Your task to perform on an android device: View the shopping cart on ebay. Search for rayovac triple a on ebay, select the first entry, add it to the cart, then select checkout. Image 0: 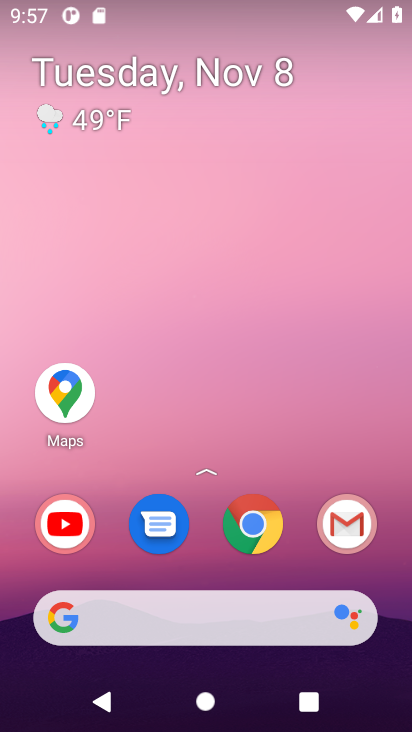
Step 0: click (256, 535)
Your task to perform on an android device: View the shopping cart on ebay. Search for rayovac triple a on ebay, select the first entry, add it to the cart, then select checkout. Image 1: 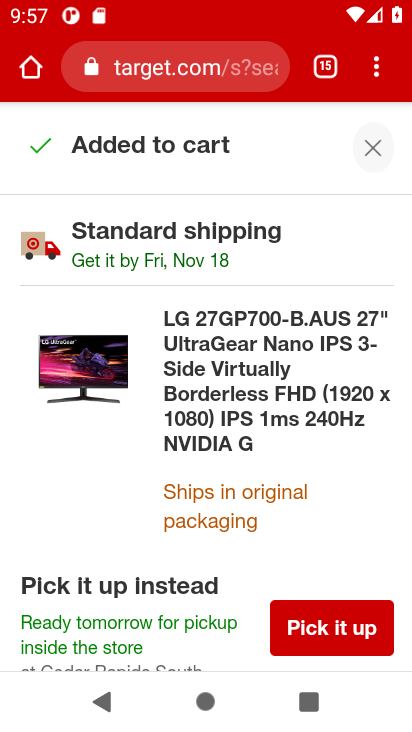
Step 1: click (179, 71)
Your task to perform on an android device: View the shopping cart on ebay. Search for rayovac triple a on ebay, select the first entry, add it to the cart, then select checkout. Image 2: 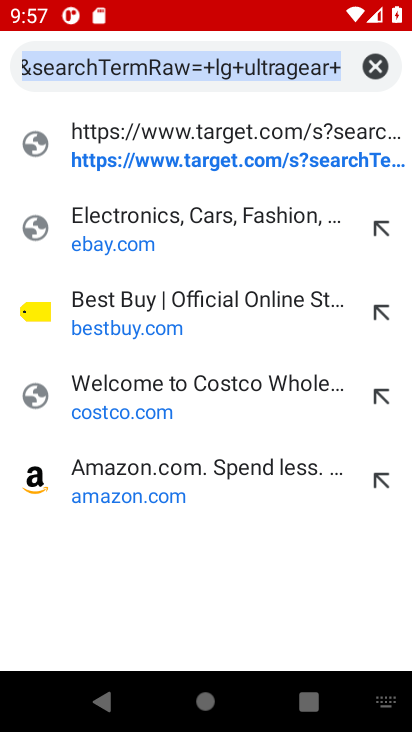
Step 2: click (117, 224)
Your task to perform on an android device: View the shopping cart on ebay. Search for rayovac triple a on ebay, select the first entry, add it to the cart, then select checkout. Image 3: 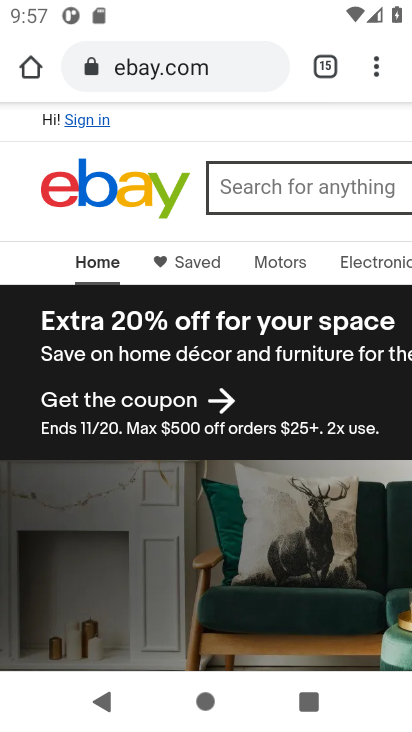
Step 3: drag from (339, 224) to (8, 217)
Your task to perform on an android device: View the shopping cart on ebay. Search for rayovac triple a on ebay, select the first entry, add it to the cart, then select checkout. Image 4: 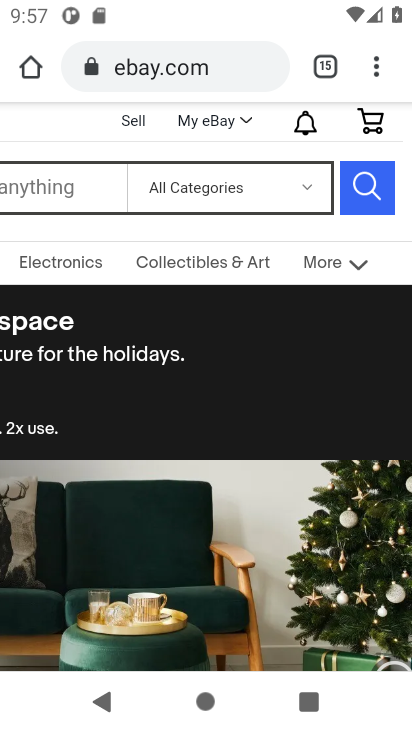
Step 4: click (372, 125)
Your task to perform on an android device: View the shopping cart on ebay. Search for rayovac triple a on ebay, select the first entry, add it to the cart, then select checkout. Image 5: 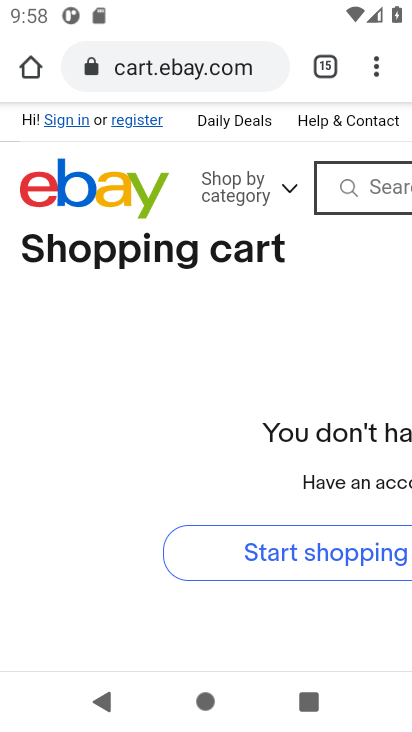
Step 5: click (373, 190)
Your task to perform on an android device: View the shopping cart on ebay. Search for rayovac triple a on ebay, select the first entry, add it to the cart, then select checkout. Image 6: 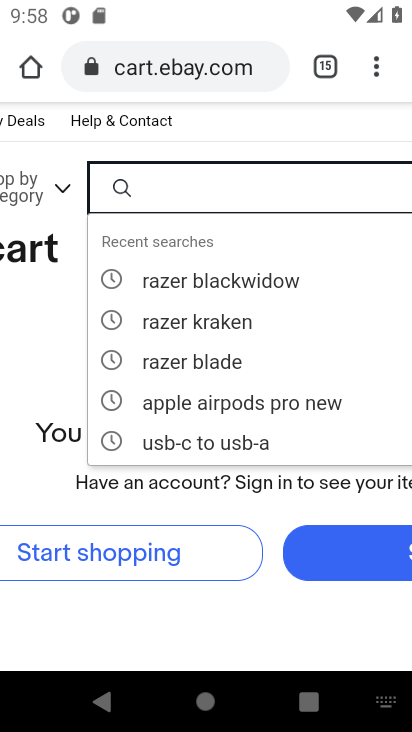
Step 6: type "rayovac triple a"
Your task to perform on an android device: View the shopping cart on ebay. Search for rayovac triple a on ebay, select the first entry, add it to the cart, then select checkout. Image 7: 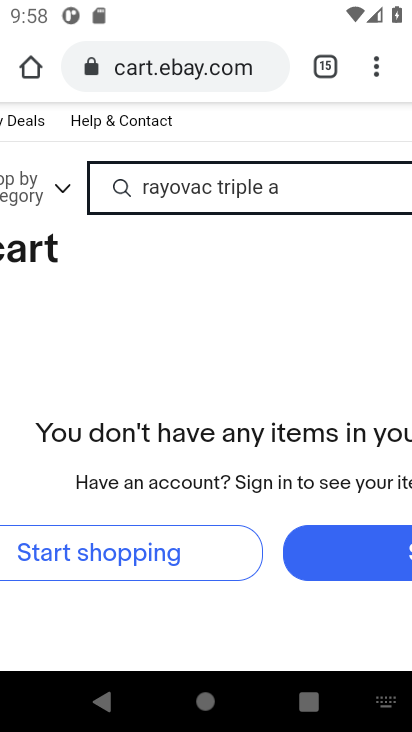
Step 7: drag from (306, 191) to (18, 204)
Your task to perform on an android device: View the shopping cart on ebay. Search for rayovac triple a on ebay, select the first entry, add it to the cart, then select checkout. Image 8: 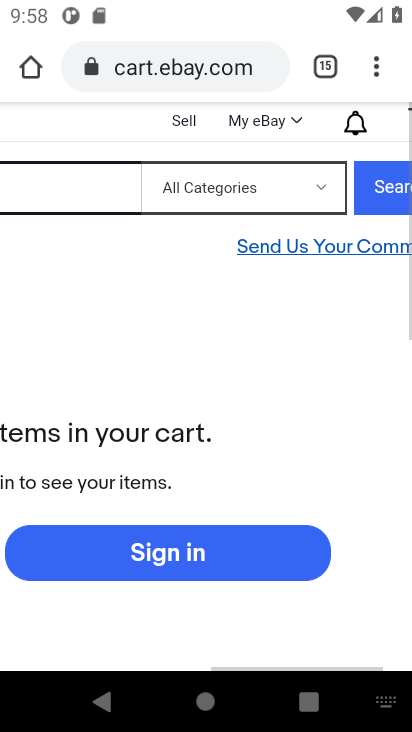
Step 8: click (356, 186)
Your task to perform on an android device: View the shopping cart on ebay. Search for rayovac triple a on ebay, select the first entry, add it to the cart, then select checkout. Image 9: 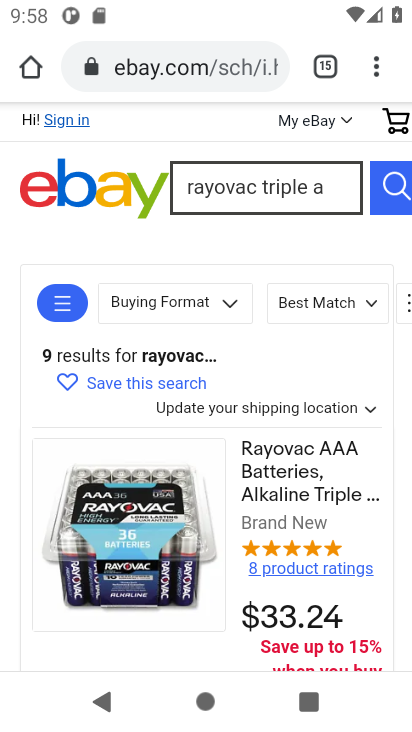
Step 9: drag from (202, 517) to (220, 322)
Your task to perform on an android device: View the shopping cart on ebay. Search for rayovac triple a on ebay, select the first entry, add it to the cart, then select checkout. Image 10: 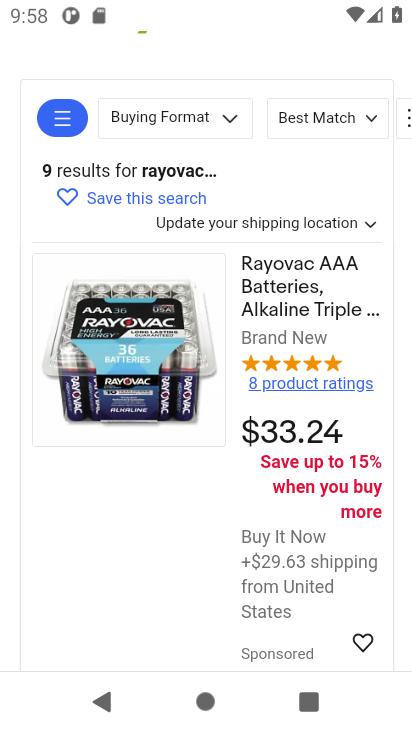
Step 10: drag from (211, 504) to (198, 303)
Your task to perform on an android device: View the shopping cart on ebay. Search for rayovac triple a on ebay, select the first entry, add it to the cart, then select checkout. Image 11: 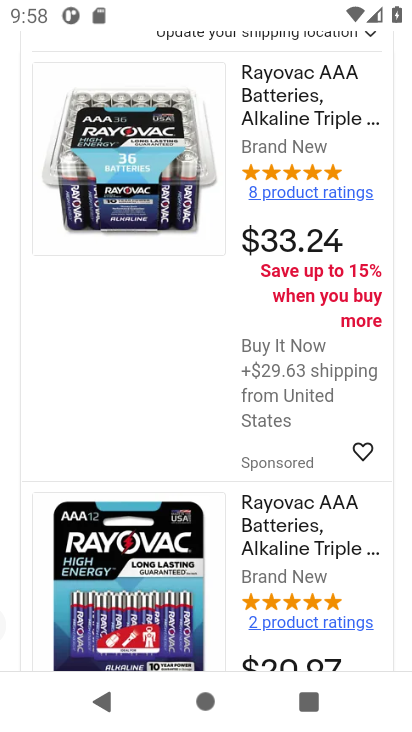
Step 11: click (172, 231)
Your task to perform on an android device: View the shopping cart on ebay. Search for rayovac triple a on ebay, select the first entry, add it to the cart, then select checkout. Image 12: 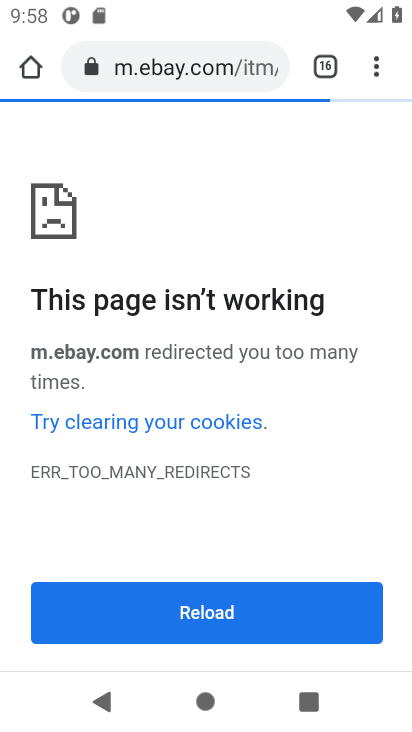
Step 12: task complete